Your task to perform on an android device: Search for the best rated 4K TV on Best Buy. Image 0: 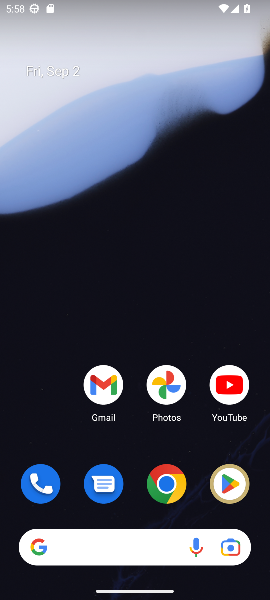
Step 0: click (166, 484)
Your task to perform on an android device: Search for the best rated 4K TV on Best Buy. Image 1: 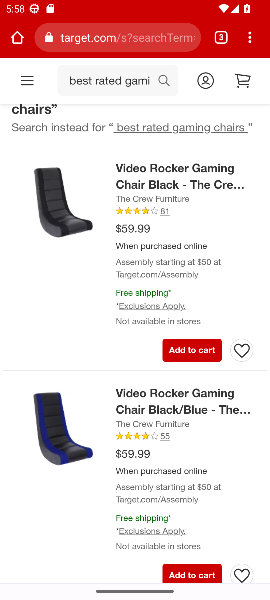
Step 1: click (148, 41)
Your task to perform on an android device: Search for the best rated 4K TV on Best Buy. Image 2: 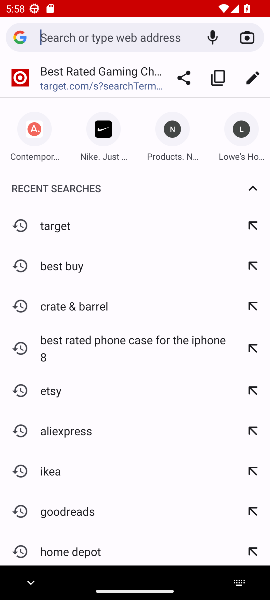
Step 2: type " Best Buy"
Your task to perform on an android device: Search for the best rated 4K TV on Best Buy. Image 3: 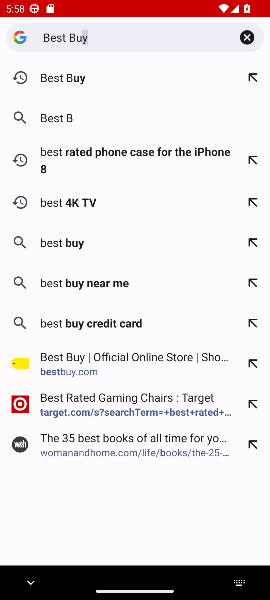
Step 3: press enter
Your task to perform on an android device: Search for the best rated 4K TV on Best Buy. Image 4: 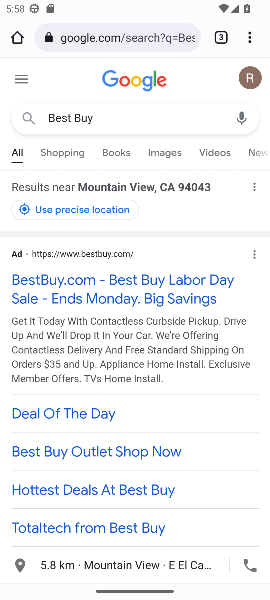
Step 4: drag from (157, 524) to (192, 220)
Your task to perform on an android device: Search for the best rated 4K TV on Best Buy. Image 5: 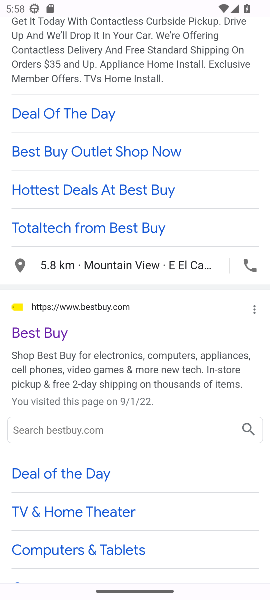
Step 5: click (49, 335)
Your task to perform on an android device: Search for the best rated 4K TV on Best Buy. Image 6: 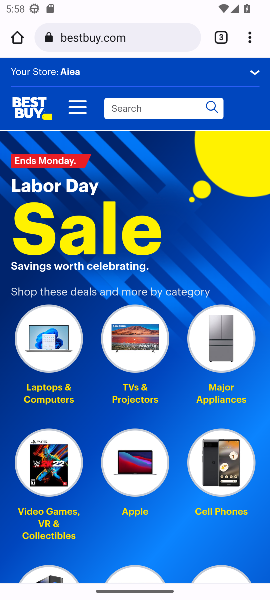
Step 6: click (132, 106)
Your task to perform on an android device: Search for the best rated 4K TV on Best Buy. Image 7: 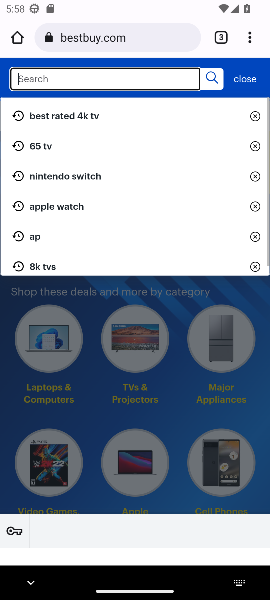
Step 7: type "best rated 4K TV"
Your task to perform on an android device: Search for the best rated 4K TV on Best Buy. Image 8: 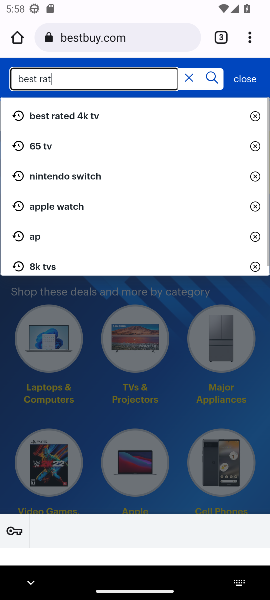
Step 8: press enter
Your task to perform on an android device: Search for the best rated 4K TV on Best Buy. Image 9: 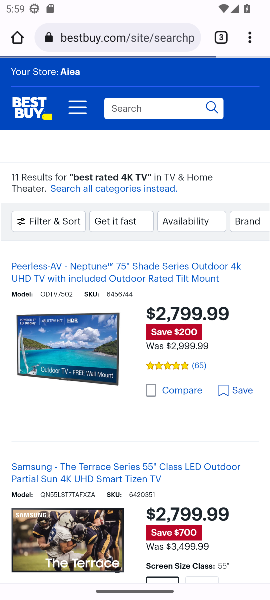
Step 9: task complete